Your task to perform on an android device: turn off notifications settings in the gmail app Image 0: 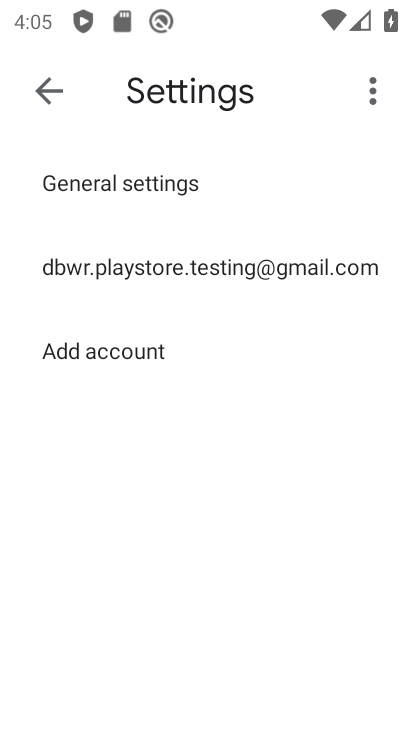
Step 0: press home button
Your task to perform on an android device: turn off notifications settings in the gmail app Image 1: 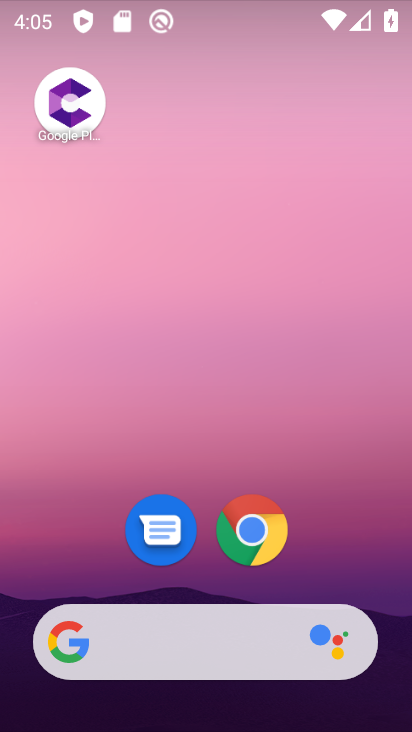
Step 1: drag from (212, 698) to (343, 158)
Your task to perform on an android device: turn off notifications settings in the gmail app Image 2: 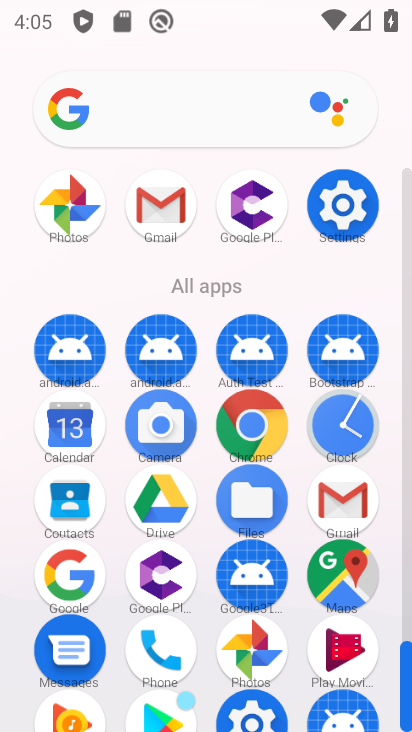
Step 2: click (168, 194)
Your task to perform on an android device: turn off notifications settings in the gmail app Image 3: 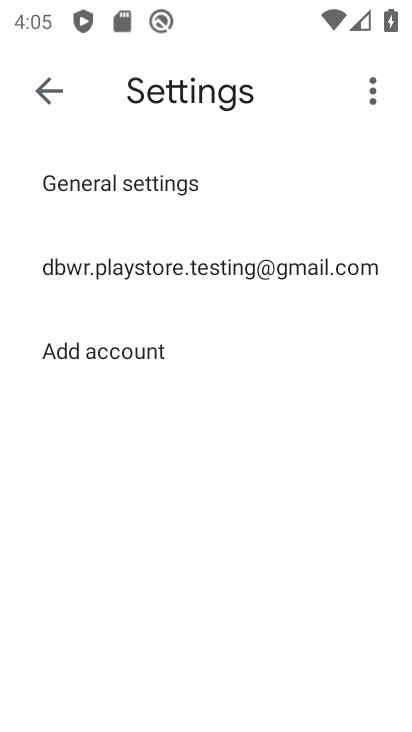
Step 3: click (162, 262)
Your task to perform on an android device: turn off notifications settings in the gmail app Image 4: 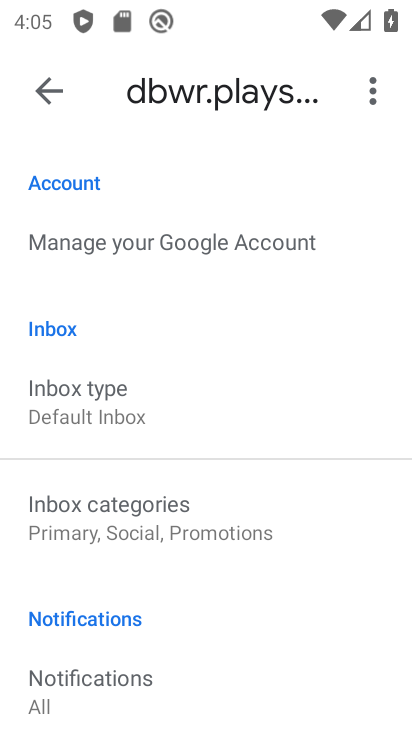
Step 4: click (101, 690)
Your task to perform on an android device: turn off notifications settings in the gmail app Image 5: 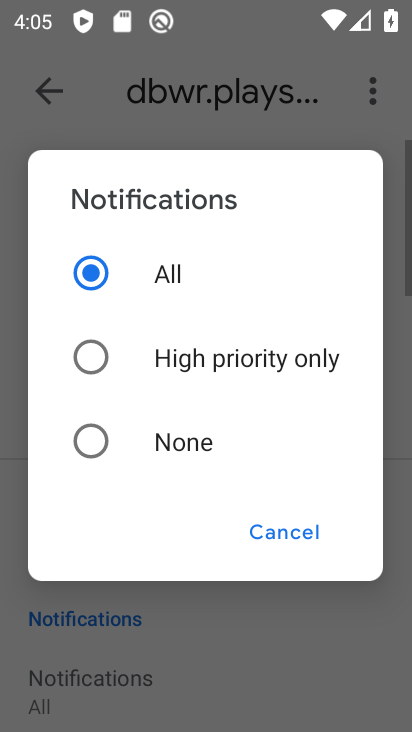
Step 5: click (205, 403)
Your task to perform on an android device: turn off notifications settings in the gmail app Image 6: 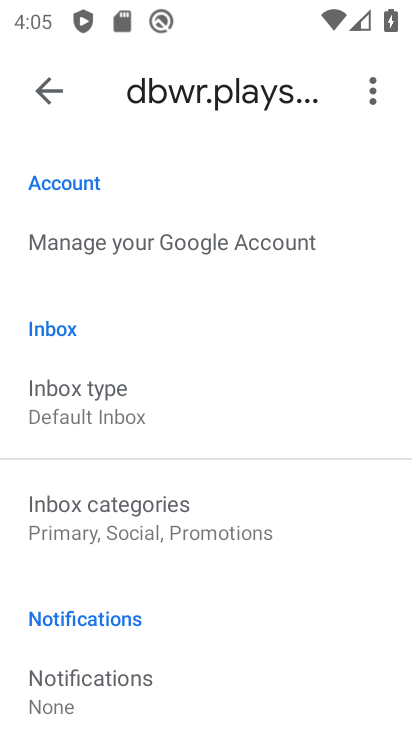
Step 6: task complete